Your task to perform on an android device: change notification settings in the gmail app Image 0: 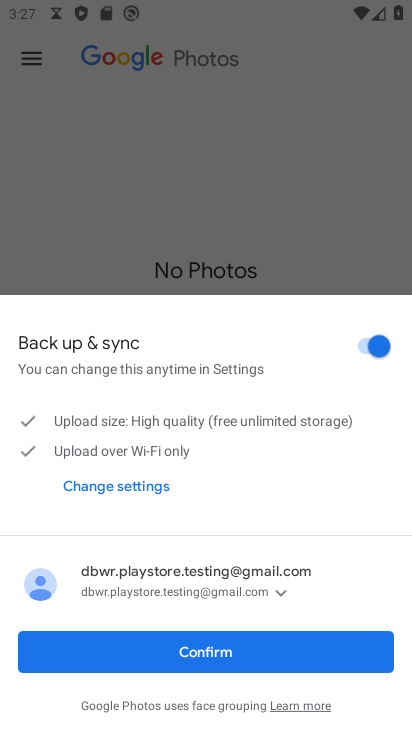
Step 0: click (336, 201)
Your task to perform on an android device: change notification settings in the gmail app Image 1: 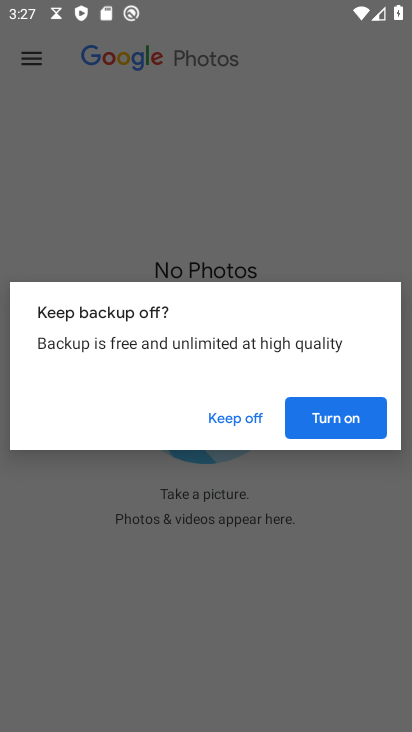
Step 1: press home button
Your task to perform on an android device: change notification settings in the gmail app Image 2: 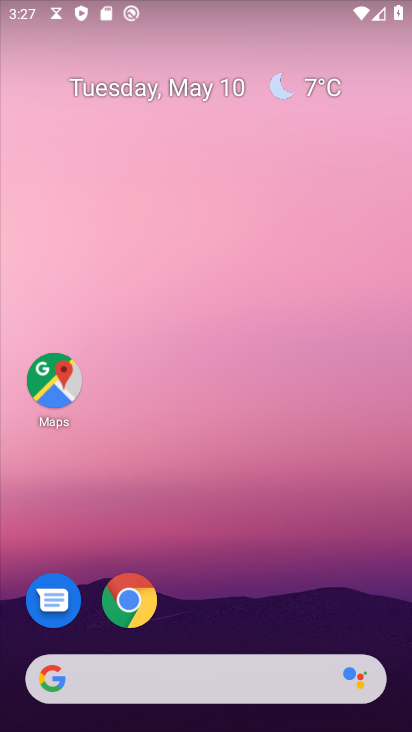
Step 2: drag from (246, 592) to (239, 327)
Your task to perform on an android device: change notification settings in the gmail app Image 3: 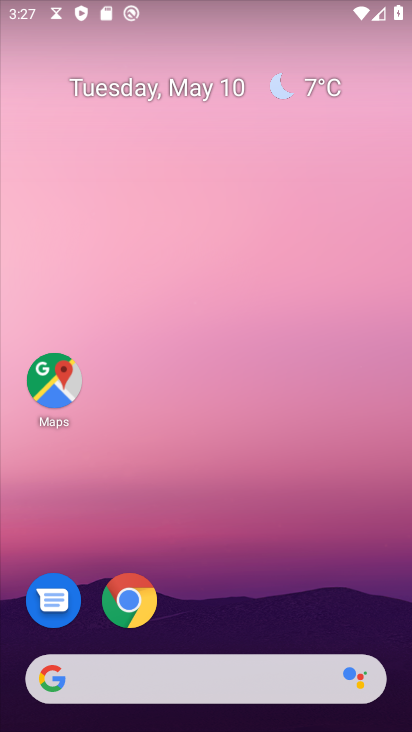
Step 3: drag from (221, 437) to (187, 109)
Your task to perform on an android device: change notification settings in the gmail app Image 4: 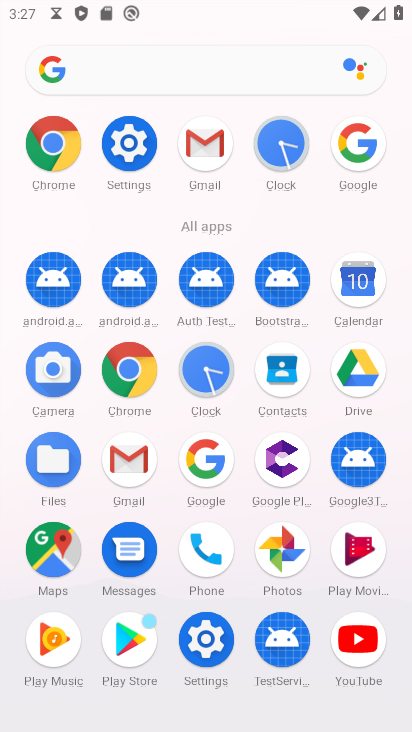
Step 4: click (219, 142)
Your task to perform on an android device: change notification settings in the gmail app Image 5: 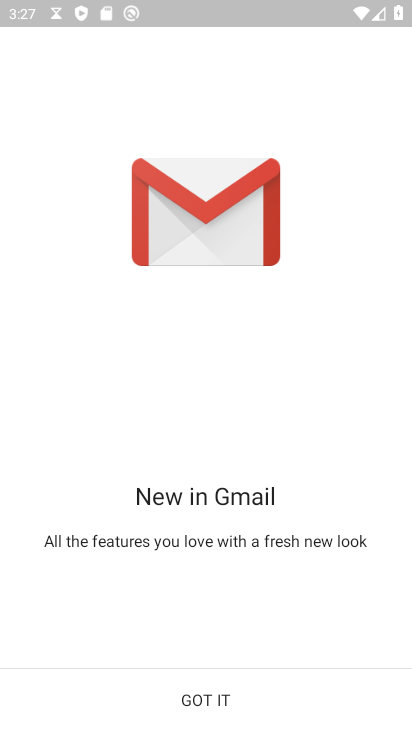
Step 5: task complete